Your task to perform on an android device: find photos in the google photos app Image 0: 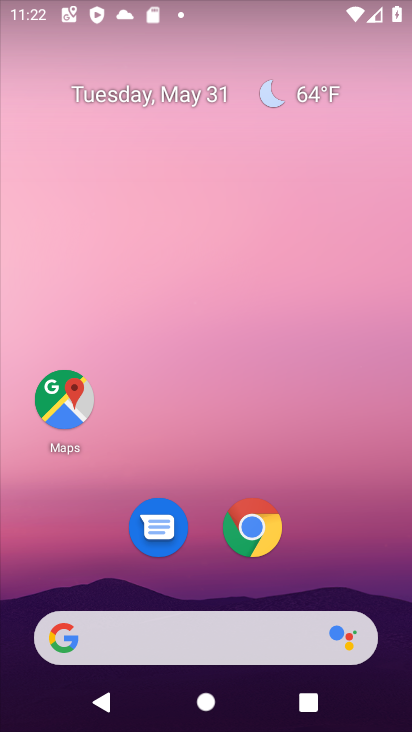
Step 0: drag from (115, 543) to (247, 144)
Your task to perform on an android device: find photos in the google photos app Image 1: 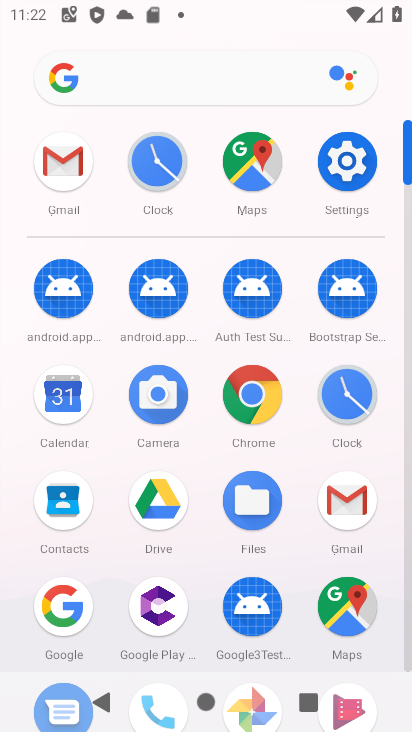
Step 1: drag from (177, 546) to (143, 1)
Your task to perform on an android device: find photos in the google photos app Image 2: 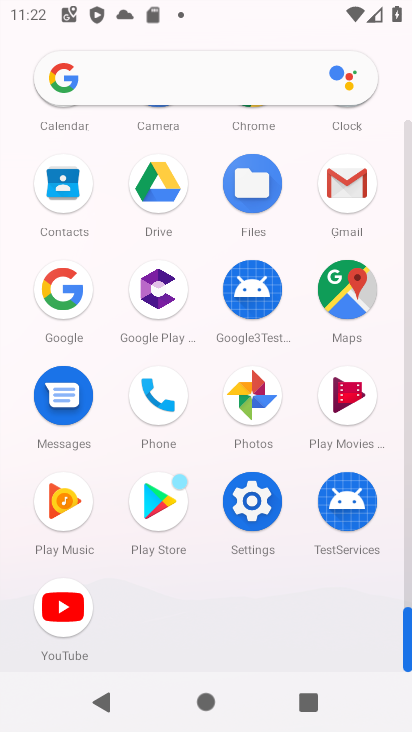
Step 2: click (255, 417)
Your task to perform on an android device: find photos in the google photos app Image 3: 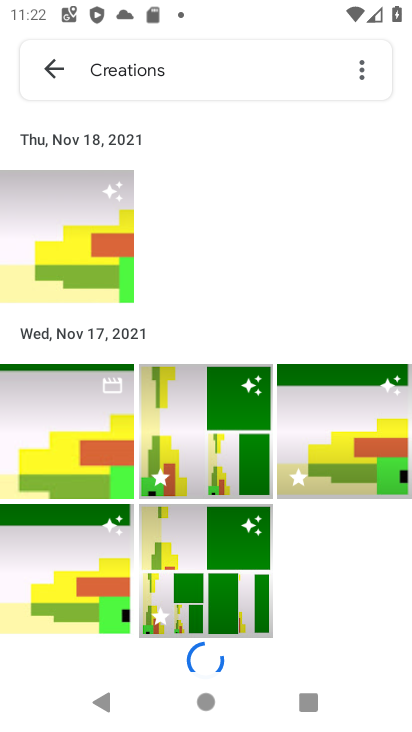
Step 3: click (49, 67)
Your task to perform on an android device: find photos in the google photos app Image 4: 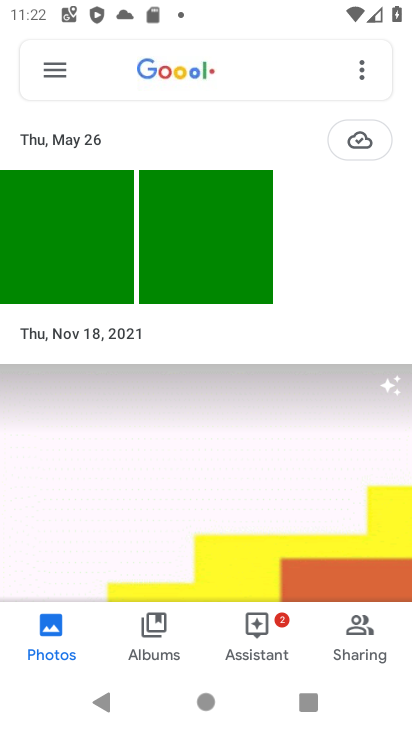
Step 4: task complete